Your task to perform on an android device: delete the emails in spam in the gmail app Image 0: 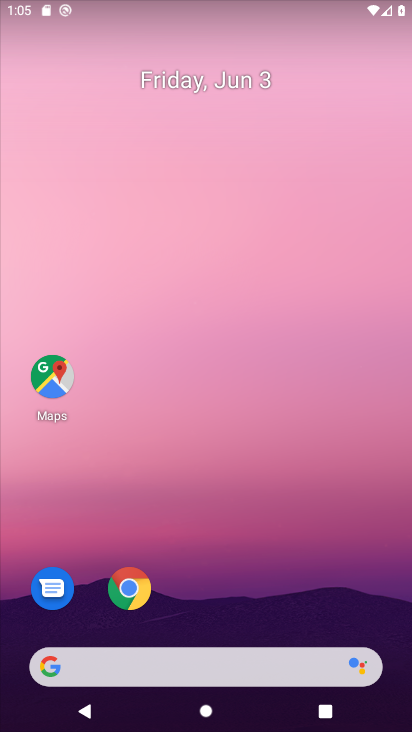
Step 0: drag from (276, 601) to (200, 239)
Your task to perform on an android device: delete the emails in spam in the gmail app Image 1: 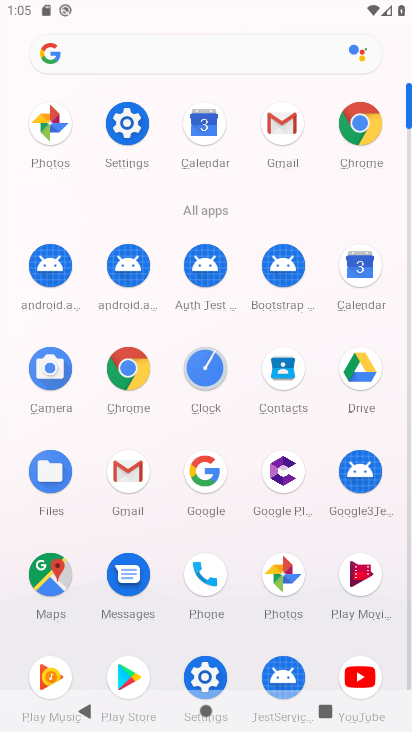
Step 1: click (287, 142)
Your task to perform on an android device: delete the emails in spam in the gmail app Image 2: 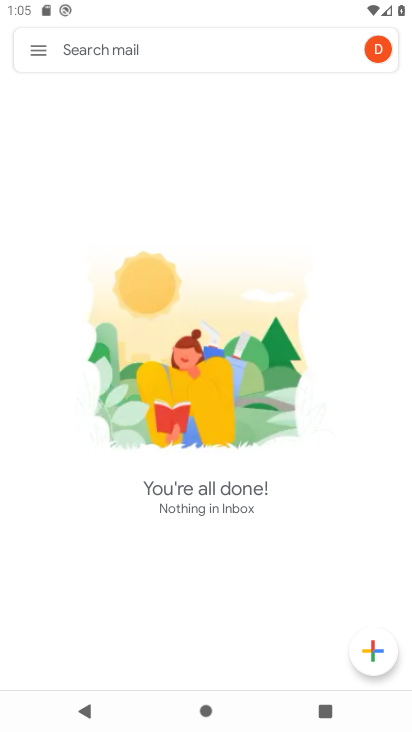
Step 2: click (40, 55)
Your task to perform on an android device: delete the emails in spam in the gmail app Image 3: 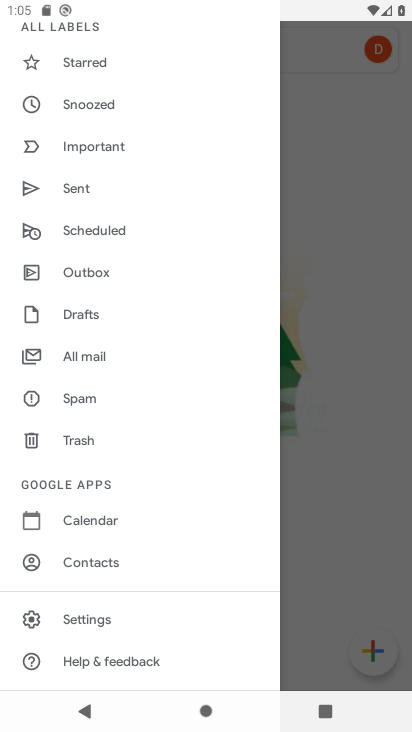
Step 3: click (118, 390)
Your task to perform on an android device: delete the emails in spam in the gmail app Image 4: 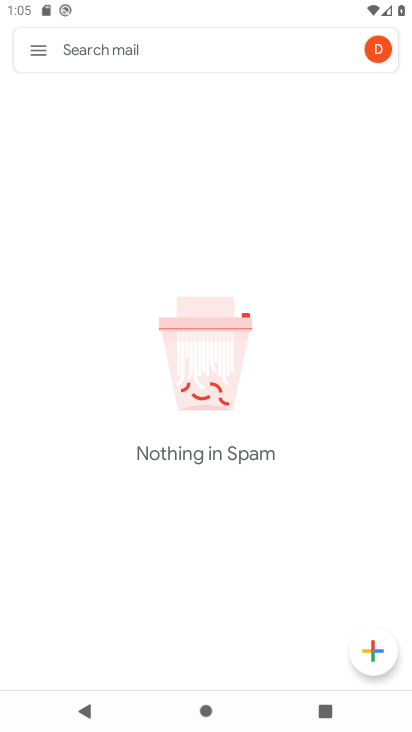
Step 4: click (42, 48)
Your task to perform on an android device: delete the emails in spam in the gmail app Image 5: 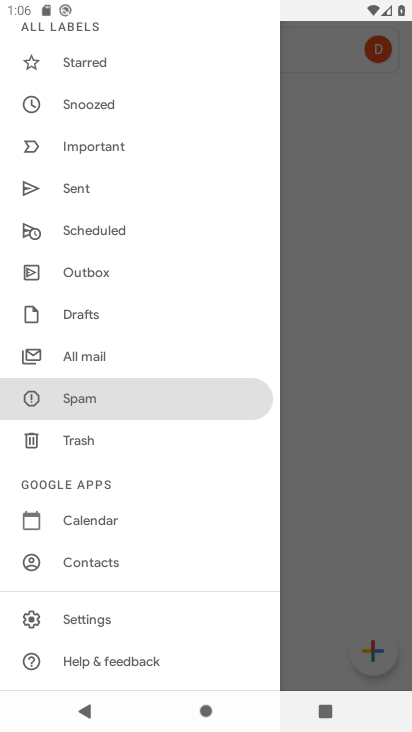
Step 5: click (124, 407)
Your task to perform on an android device: delete the emails in spam in the gmail app Image 6: 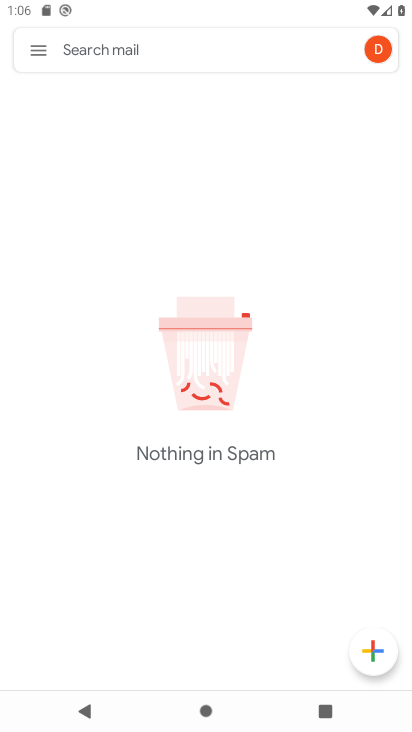
Step 6: task complete